Your task to perform on an android device: Open Google Maps and go to "Timeline" Image 0: 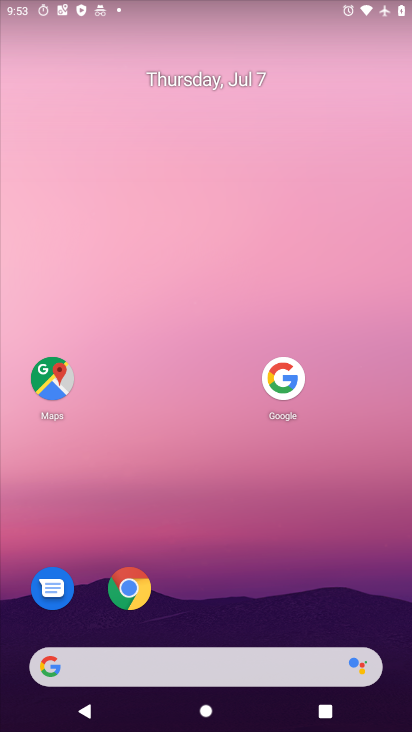
Step 0: click (55, 382)
Your task to perform on an android device: Open Google Maps and go to "Timeline" Image 1: 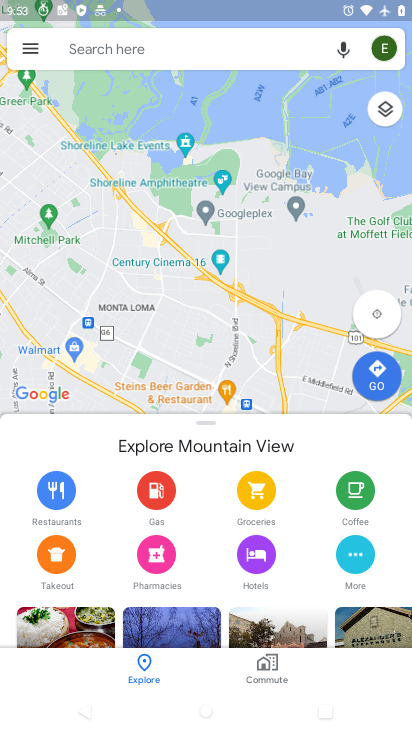
Step 1: click (26, 47)
Your task to perform on an android device: Open Google Maps and go to "Timeline" Image 2: 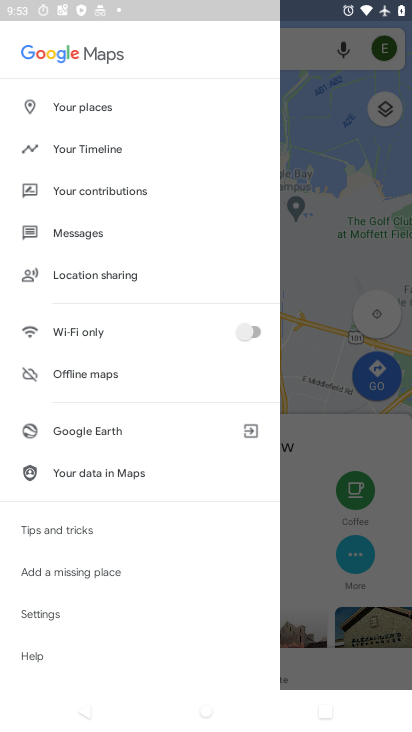
Step 2: click (93, 150)
Your task to perform on an android device: Open Google Maps and go to "Timeline" Image 3: 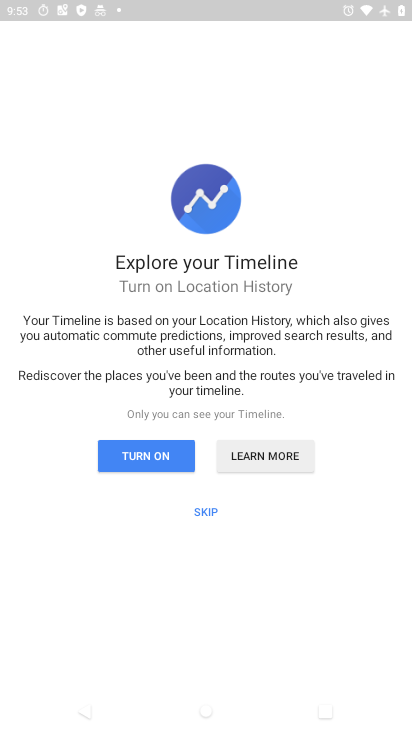
Step 3: click (210, 515)
Your task to perform on an android device: Open Google Maps and go to "Timeline" Image 4: 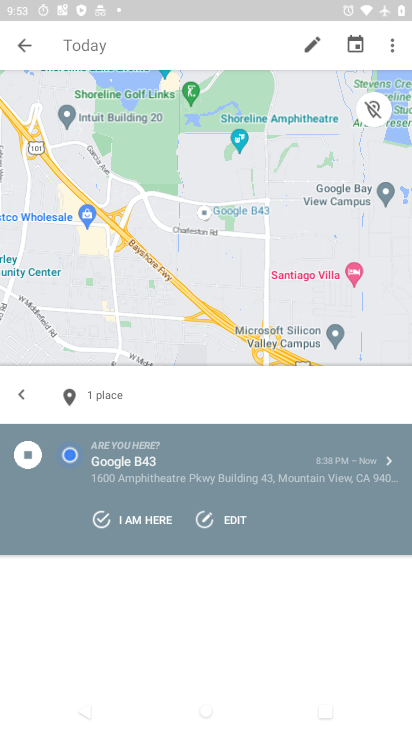
Step 4: task complete